Your task to perform on an android device: turn off wifi Image 0: 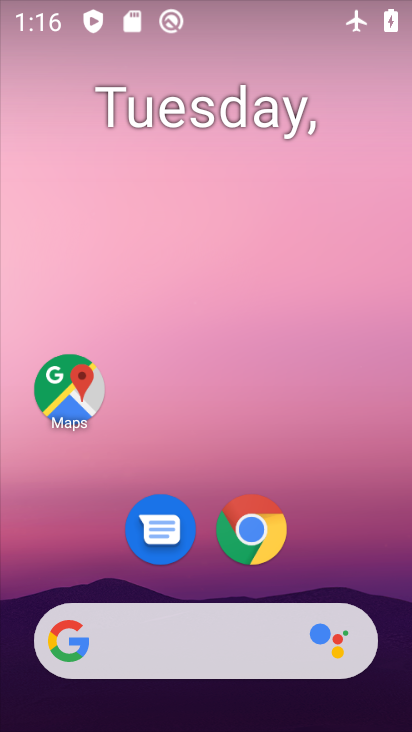
Step 0: drag from (400, 551) to (326, 246)
Your task to perform on an android device: turn off wifi Image 1: 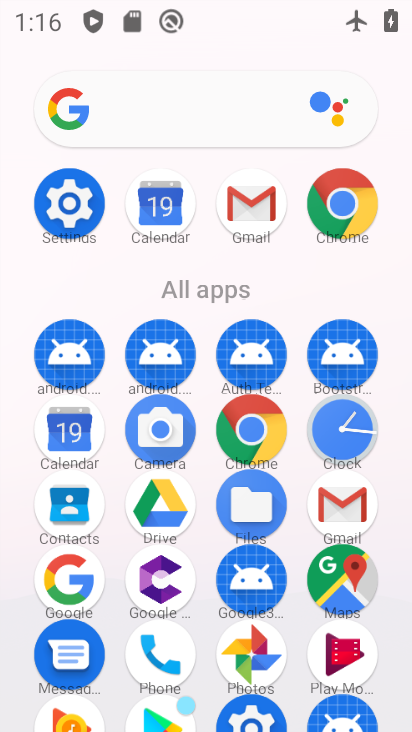
Step 1: click (62, 227)
Your task to perform on an android device: turn off wifi Image 2: 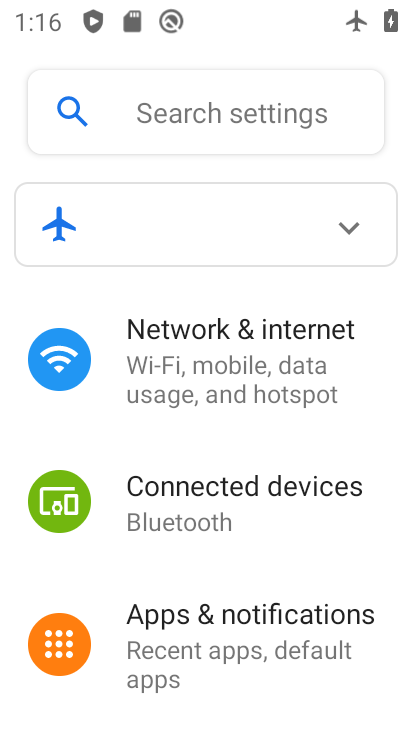
Step 2: click (195, 328)
Your task to perform on an android device: turn off wifi Image 3: 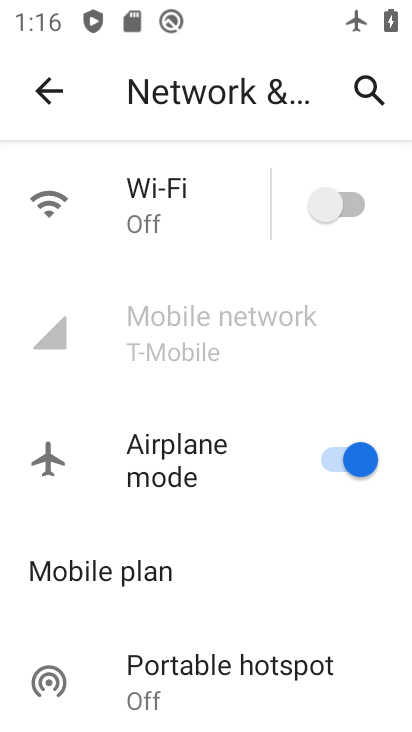
Step 3: task complete